Your task to perform on an android device: Open location settings Image 0: 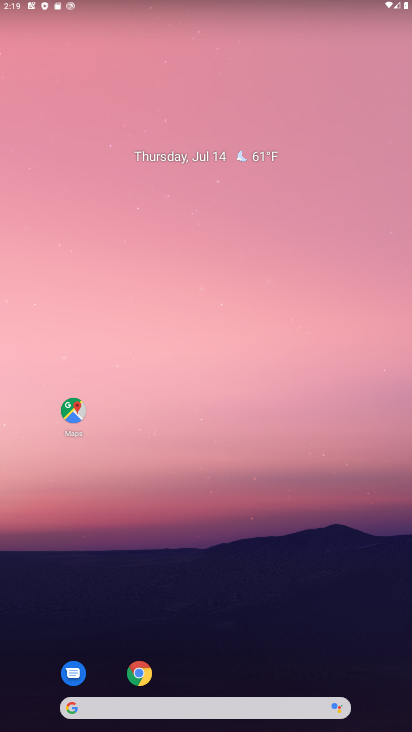
Step 0: drag from (206, 681) to (204, 265)
Your task to perform on an android device: Open location settings Image 1: 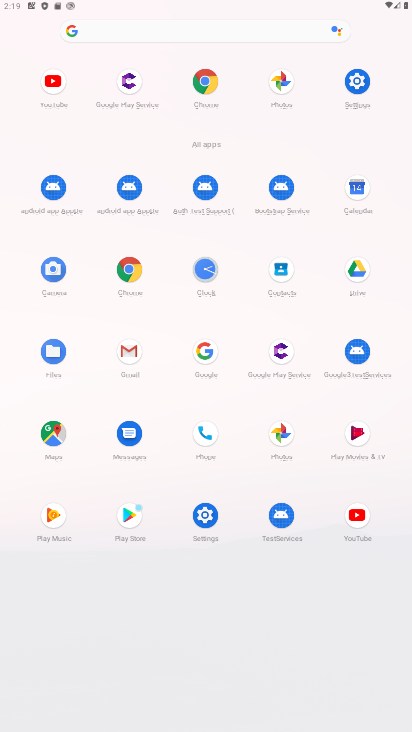
Step 1: click (362, 82)
Your task to perform on an android device: Open location settings Image 2: 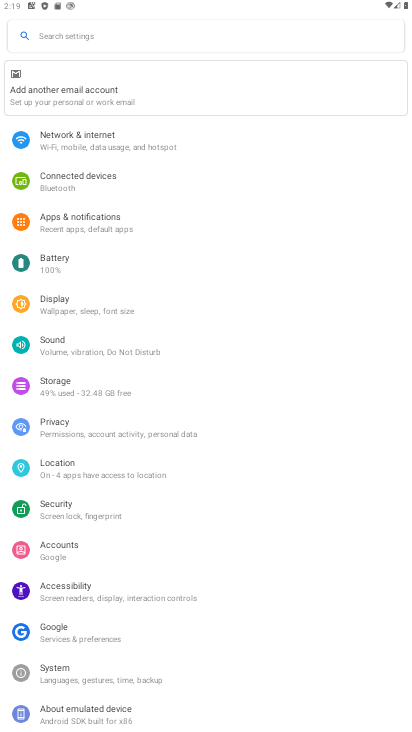
Step 2: click (110, 480)
Your task to perform on an android device: Open location settings Image 3: 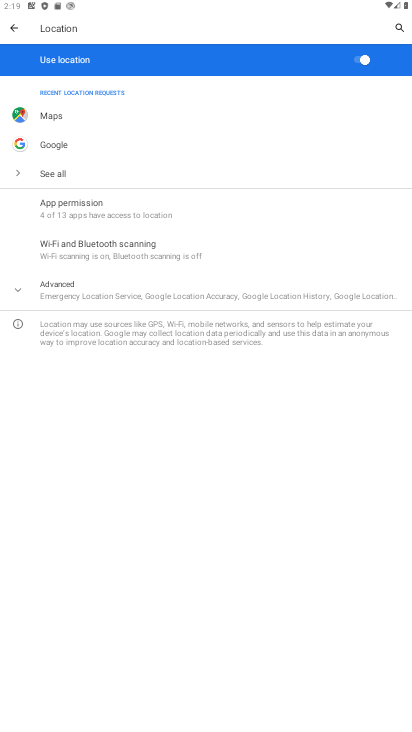
Step 3: task complete